Your task to perform on an android device: read, delete, or share a saved page in the chrome app Image 0: 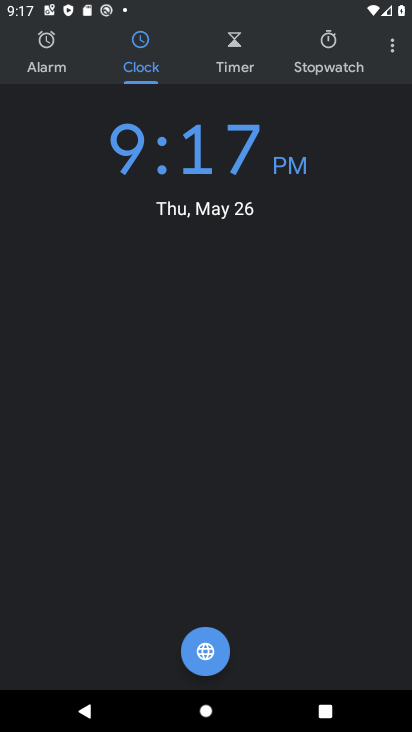
Step 0: press home button
Your task to perform on an android device: read, delete, or share a saved page in the chrome app Image 1: 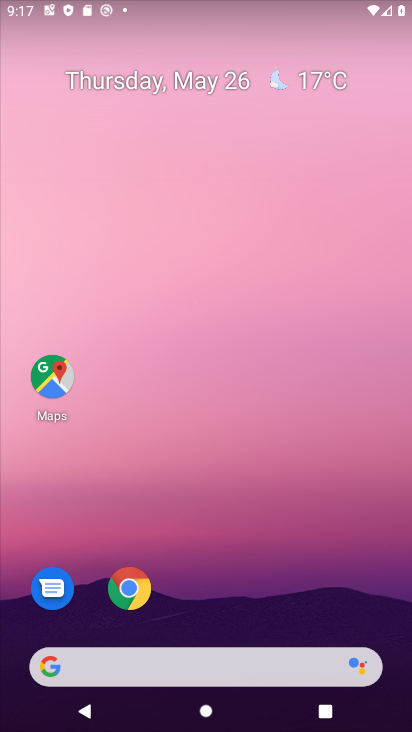
Step 1: click (129, 588)
Your task to perform on an android device: read, delete, or share a saved page in the chrome app Image 2: 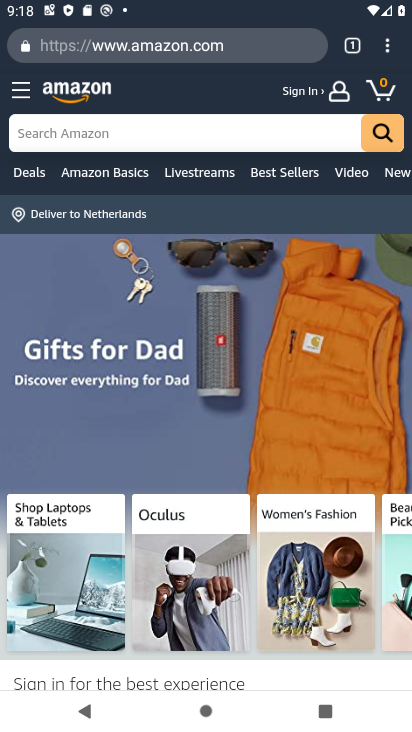
Step 2: press home button
Your task to perform on an android device: read, delete, or share a saved page in the chrome app Image 3: 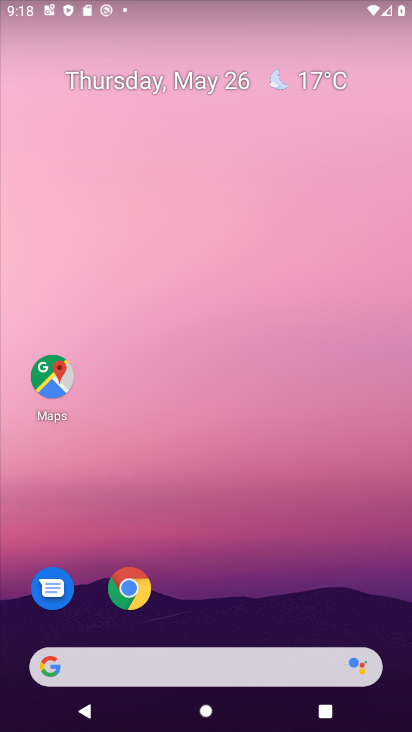
Step 3: click (131, 596)
Your task to perform on an android device: read, delete, or share a saved page in the chrome app Image 4: 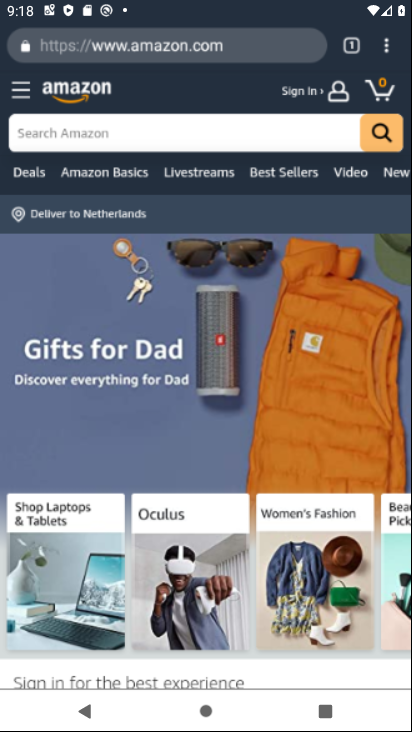
Step 4: click (131, 596)
Your task to perform on an android device: read, delete, or share a saved page in the chrome app Image 5: 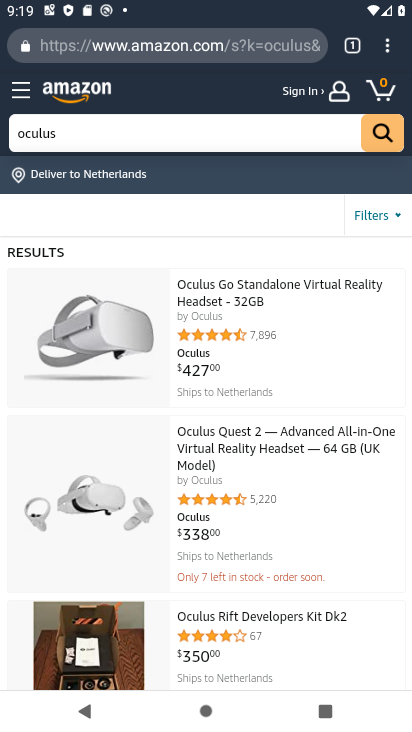
Step 5: click (384, 49)
Your task to perform on an android device: read, delete, or share a saved page in the chrome app Image 6: 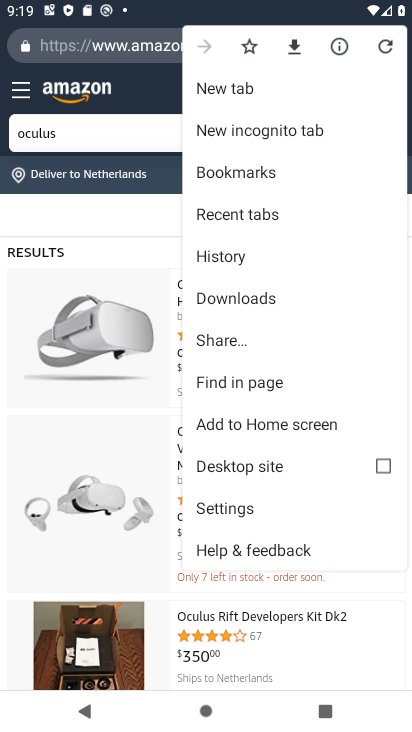
Step 6: click (218, 293)
Your task to perform on an android device: read, delete, or share a saved page in the chrome app Image 7: 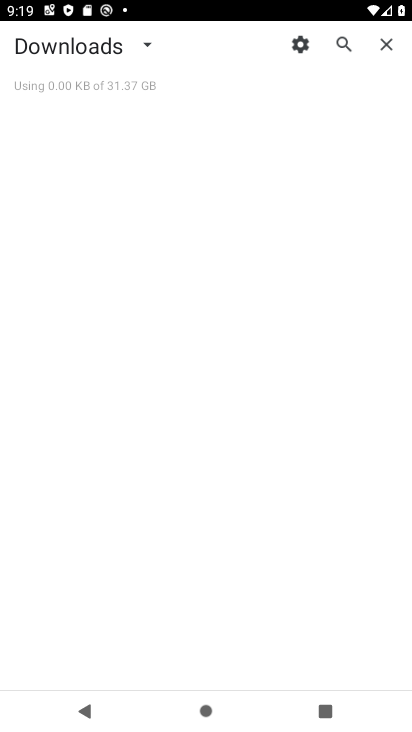
Step 7: click (147, 39)
Your task to perform on an android device: read, delete, or share a saved page in the chrome app Image 8: 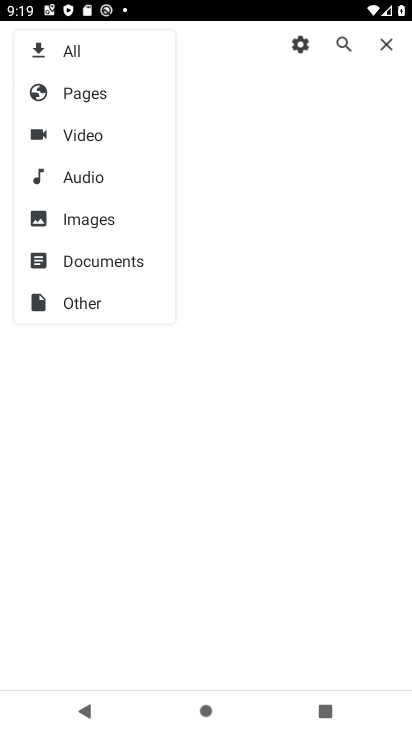
Step 8: click (84, 86)
Your task to perform on an android device: read, delete, or share a saved page in the chrome app Image 9: 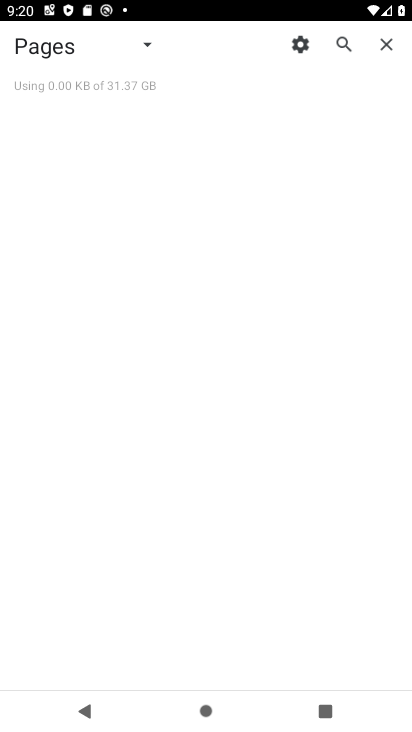
Step 9: task complete